Your task to perform on an android device: Open calendar and show me the third week of next month Image 0: 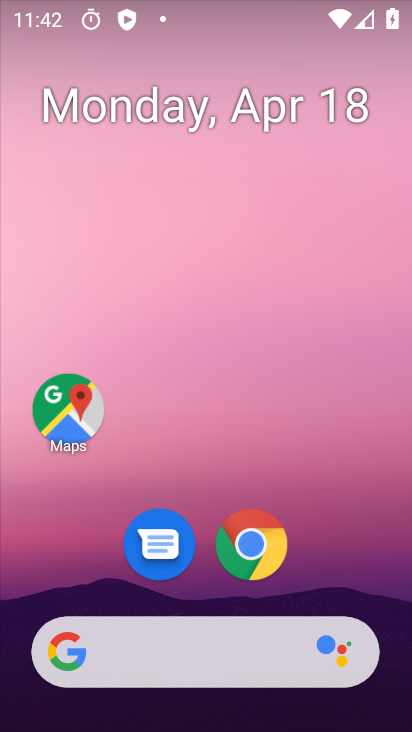
Step 0: drag from (375, 553) to (373, 5)
Your task to perform on an android device: Open calendar and show me the third week of next month Image 1: 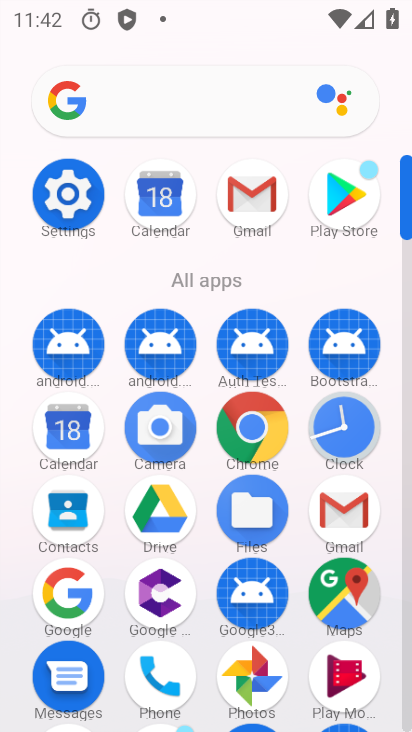
Step 1: click (154, 206)
Your task to perform on an android device: Open calendar and show me the third week of next month Image 2: 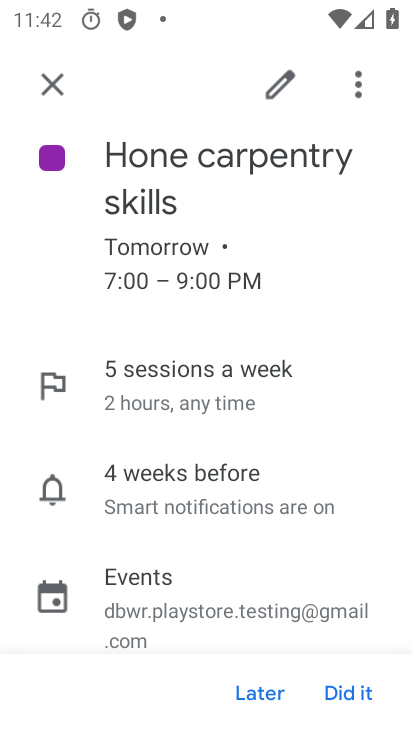
Step 2: click (62, 85)
Your task to perform on an android device: Open calendar and show me the third week of next month Image 3: 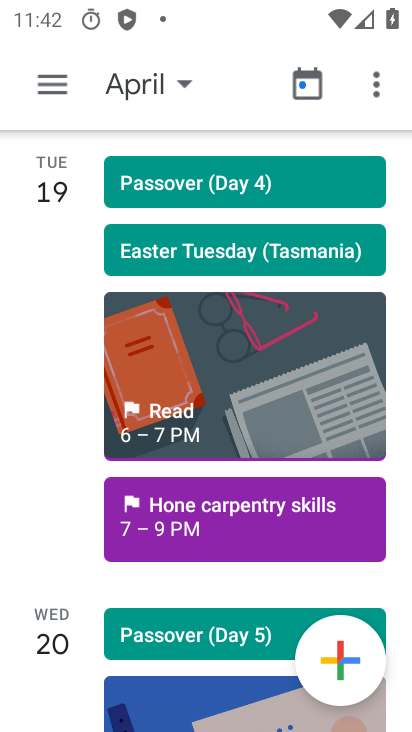
Step 3: click (186, 87)
Your task to perform on an android device: Open calendar and show me the third week of next month Image 4: 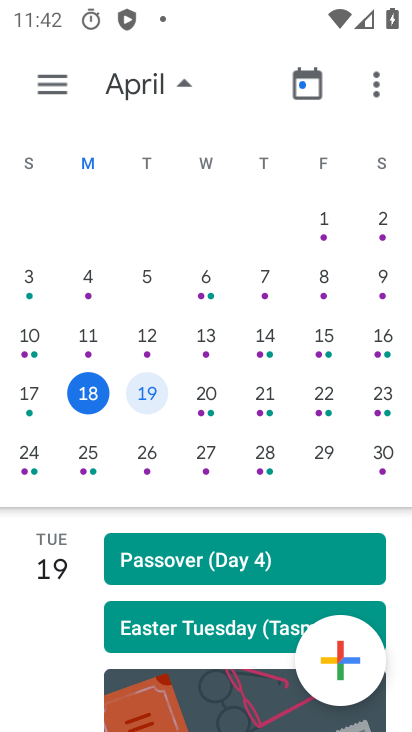
Step 4: drag from (317, 342) to (1, 287)
Your task to perform on an android device: Open calendar and show me the third week of next month Image 5: 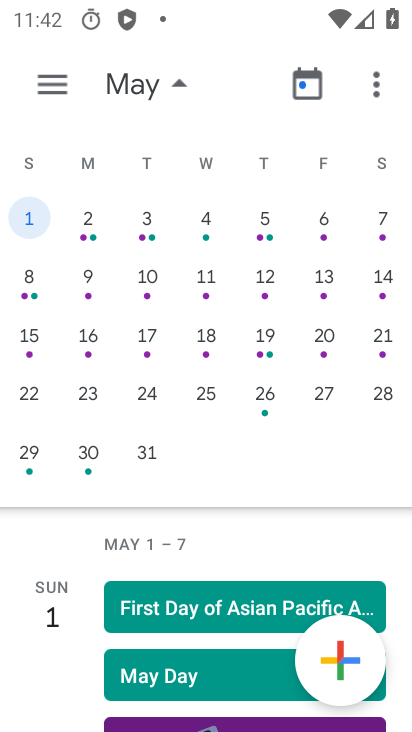
Step 5: click (44, 87)
Your task to perform on an android device: Open calendar and show me the third week of next month Image 6: 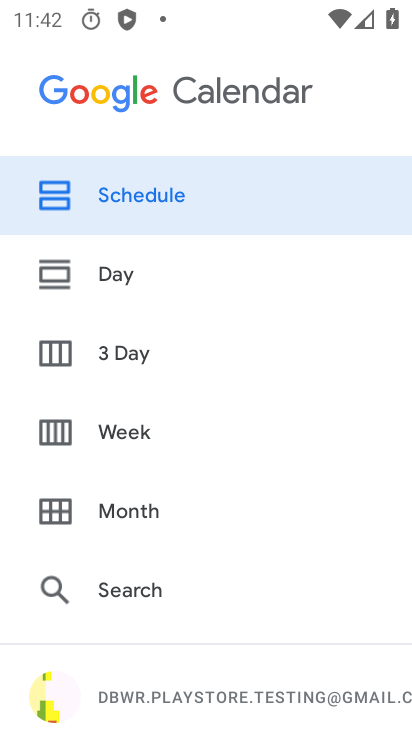
Step 6: click (59, 428)
Your task to perform on an android device: Open calendar and show me the third week of next month Image 7: 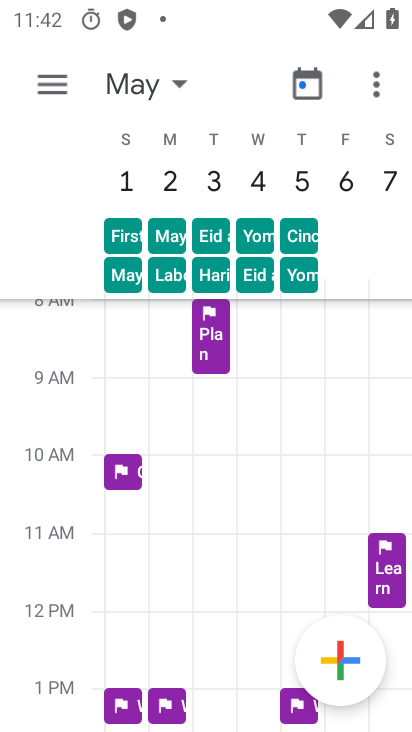
Step 7: task complete